Your task to perform on an android device: see tabs open on other devices in the chrome app Image 0: 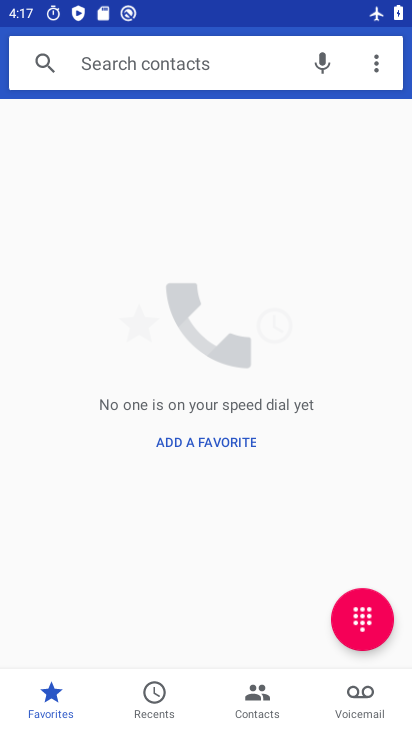
Step 0: drag from (296, 522) to (386, 397)
Your task to perform on an android device: see tabs open on other devices in the chrome app Image 1: 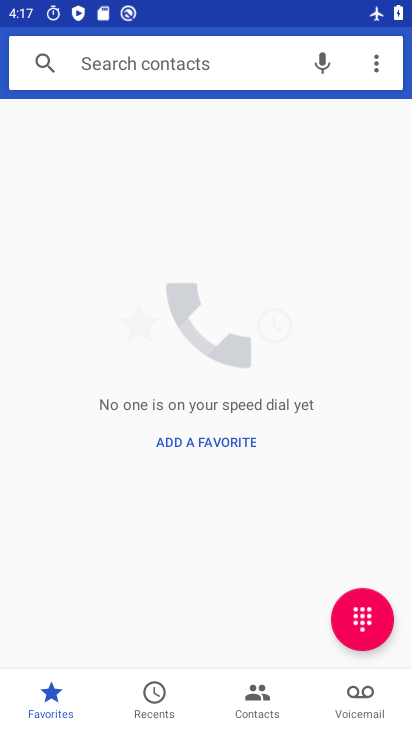
Step 1: press home button
Your task to perform on an android device: see tabs open on other devices in the chrome app Image 2: 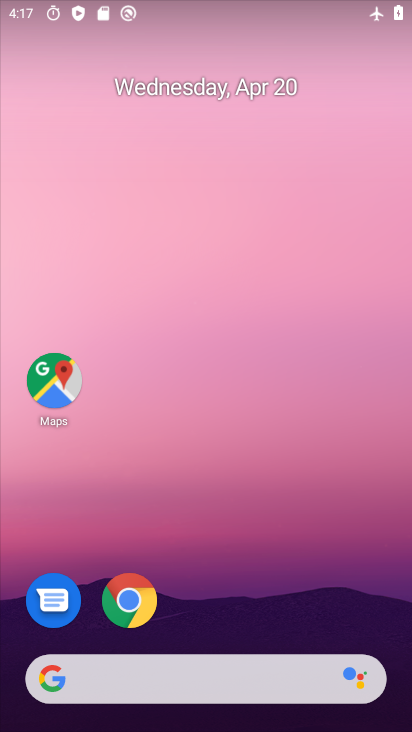
Step 2: click (128, 596)
Your task to perform on an android device: see tabs open on other devices in the chrome app Image 3: 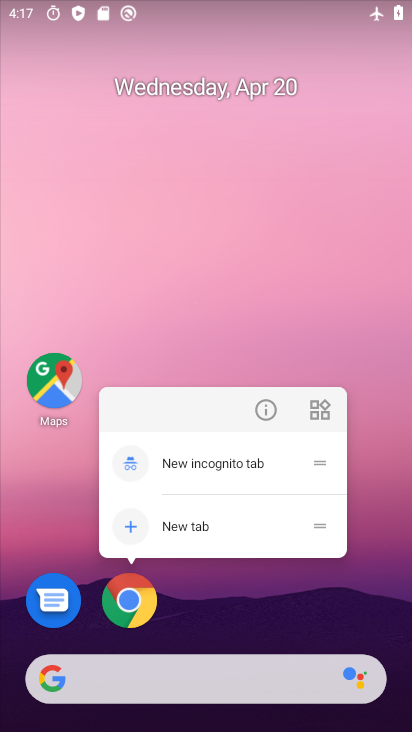
Step 3: click (130, 598)
Your task to perform on an android device: see tabs open on other devices in the chrome app Image 4: 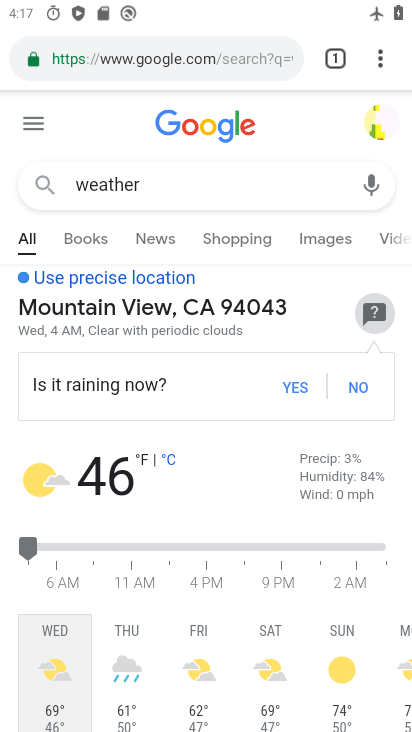
Step 4: click (380, 58)
Your task to perform on an android device: see tabs open on other devices in the chrome app Image 5: 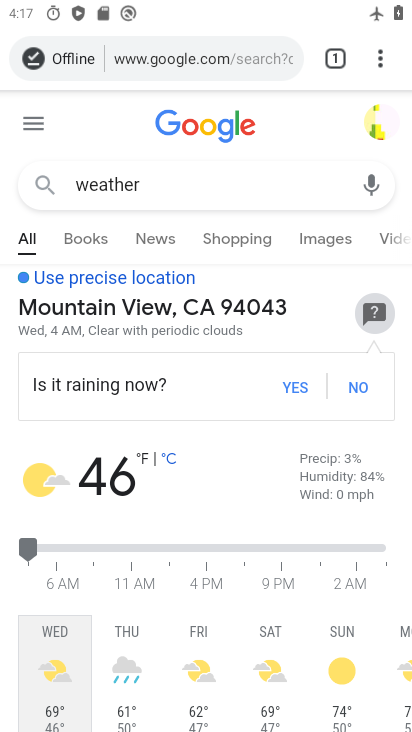
Step 5: task complete